Your task to perform on an android device: What's on my calendar tomorrow? Image 0: 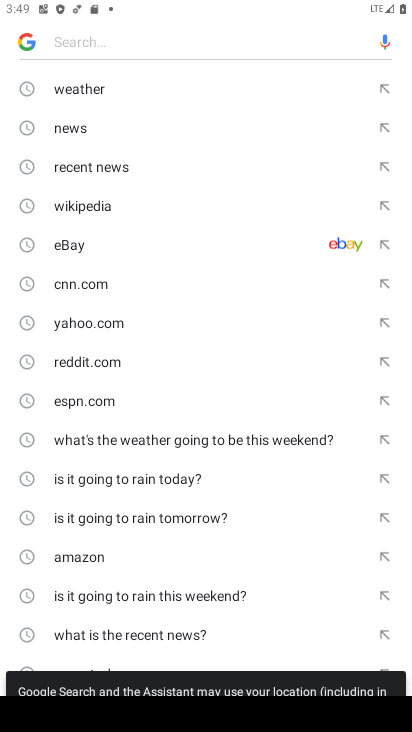
Step 0: press back button
Your task to perform on an android device: What's on my calendar tomorrow? Image 1: 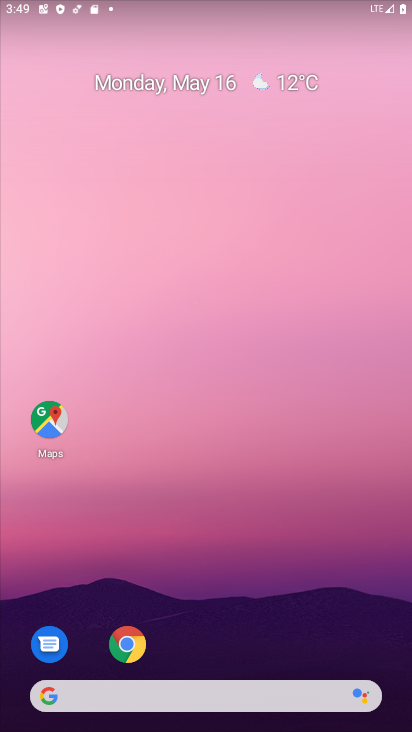
Step 1: drag from (298, 602) to (312, 193)
Your task to perform on an android device: What's on my calendar tomorrow? Image 2: 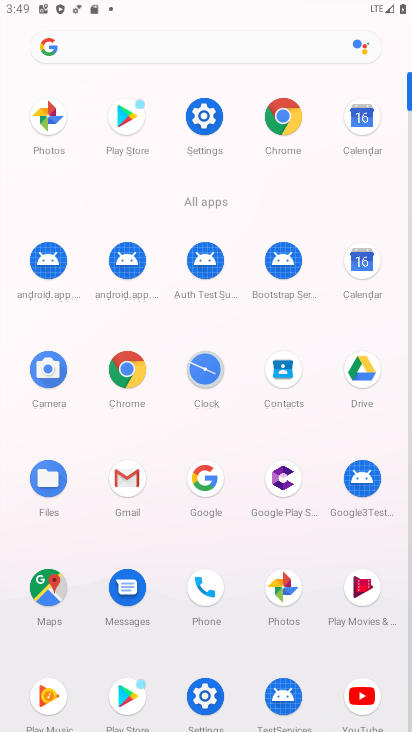
Step 2: click (376, 139)
Your task to perform on an android device: What's on my calendar tomorrow? Image 3: 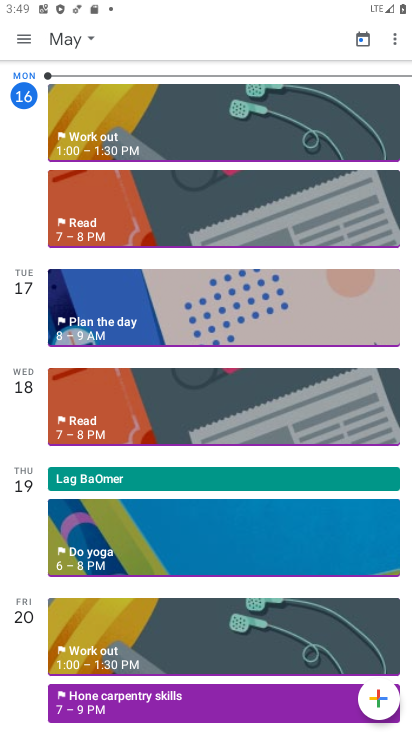
Step 3: drag from (198, 246) to (182, 535)
Your task to perform on an android device: What's on my calendar tomorrow? Image 4: 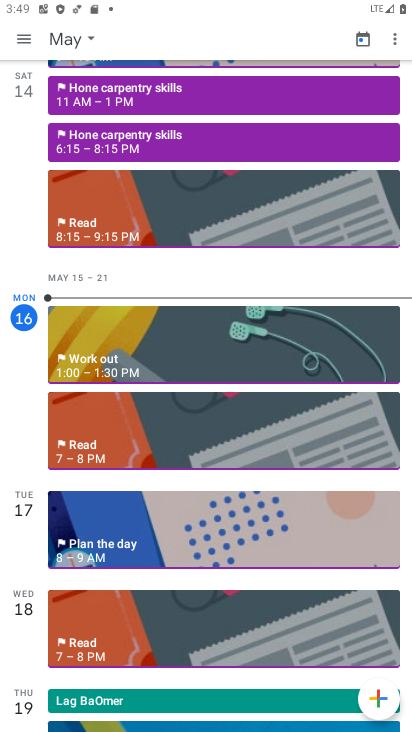
Step 4: click (134, 538)
Your task to perform on an android device: What's on my calendar tomorrow? Image 5: 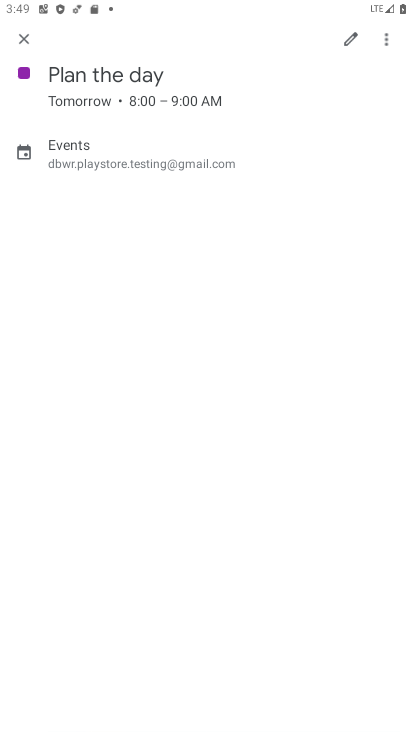
Step 5: task complete